Your task to perform on an android device: manage bookmarks in the chrome app Image 0: 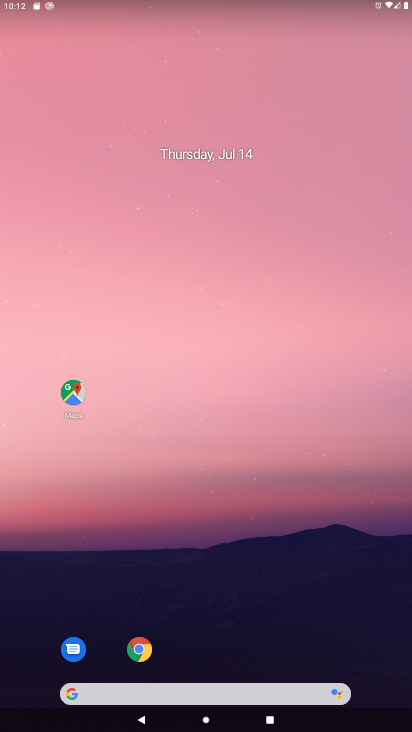
Step 0: click (147, 650)
Your task to perform on an android device: manage bookmarks in the chrome app Image 1: 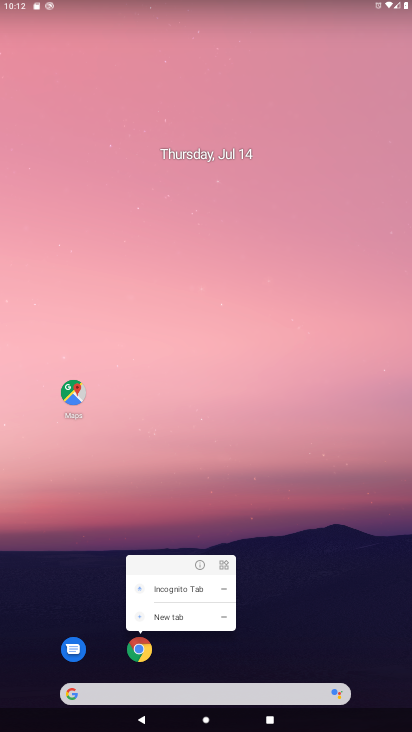
Step 1: click (147, 650)
Your task to perform on an android device: manage bookmarks in the chrome app Image 2: 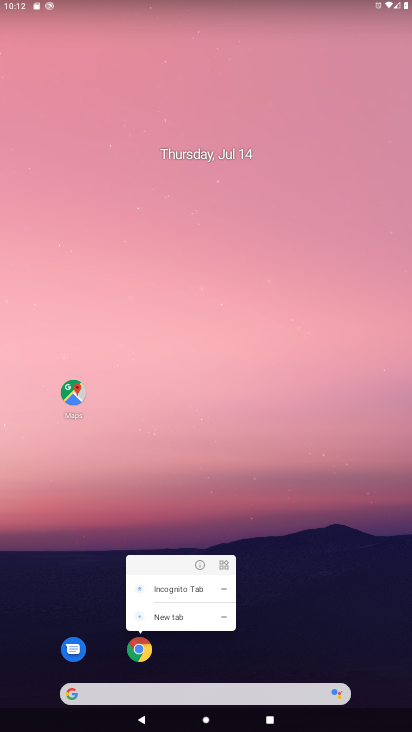
Step 2: click (147, 650)
Your task to perform on an android device: manage bookmarks in the chrome app Image 3: 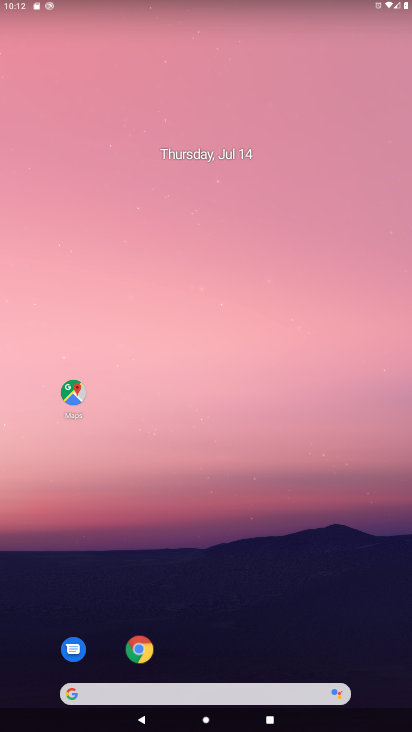
Step 3: click (147, 650)
Your task to perform on an android device: manage bookmarks in the chrome app Image 4: 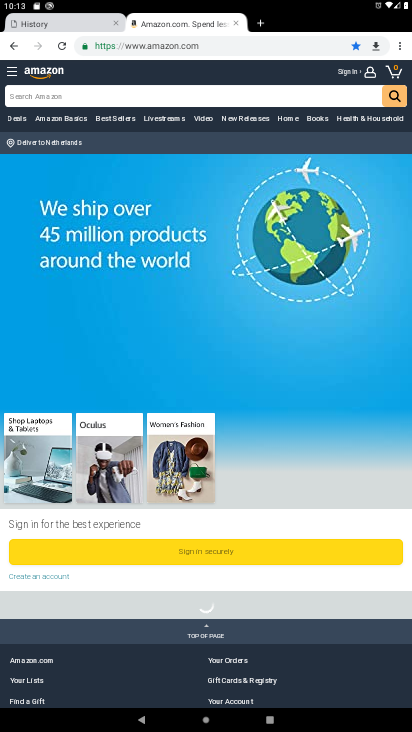
Step 4: click (401, 38)
Your task to perform on an android device: manage bookmarks in the chrome app Image 5: 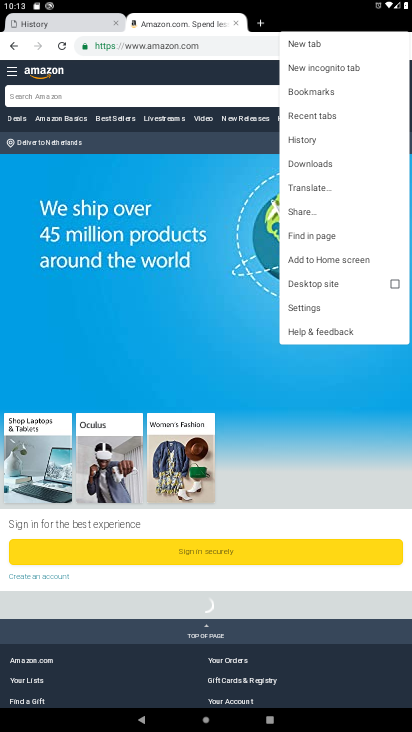
Step 5: click (331, 81)
Your task to perform on an android device: manage bookmarks in the chrome app Image 6: 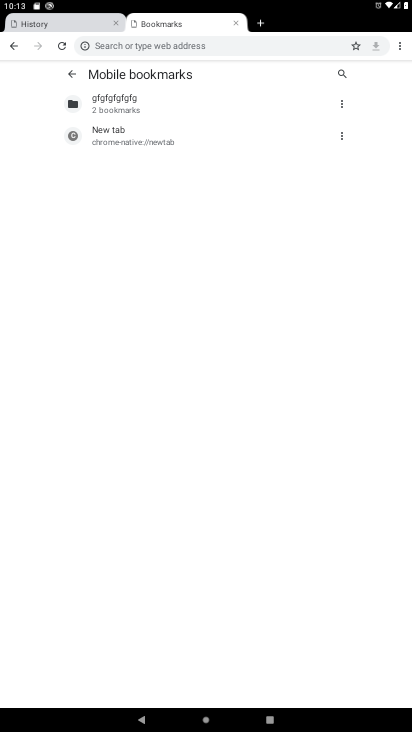
Step 6: click (344, 133)
Your task to perform on an android device: manage bookmarks in the chrome app Image 7: 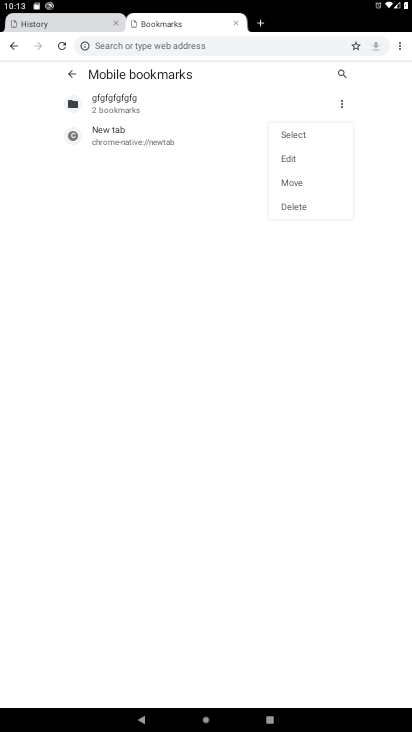
Step 7: click (297, 203)
Your task to perform on an android device: manage bookmarks in the chrome app Image 8: 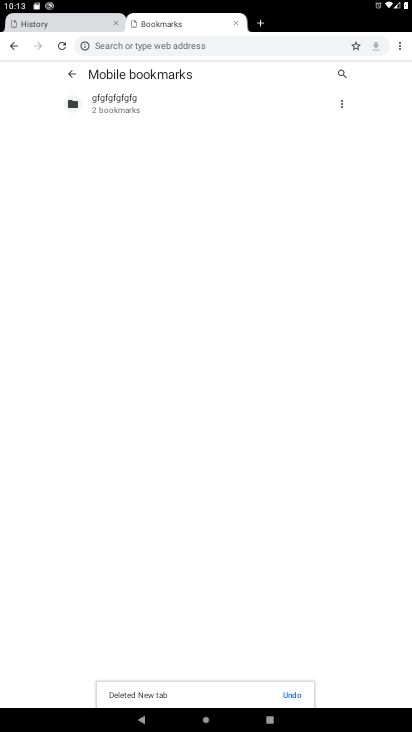
Step 8: task complete